Your task to perform on an android device: turn on priority inbox in the gmail app Image 0: 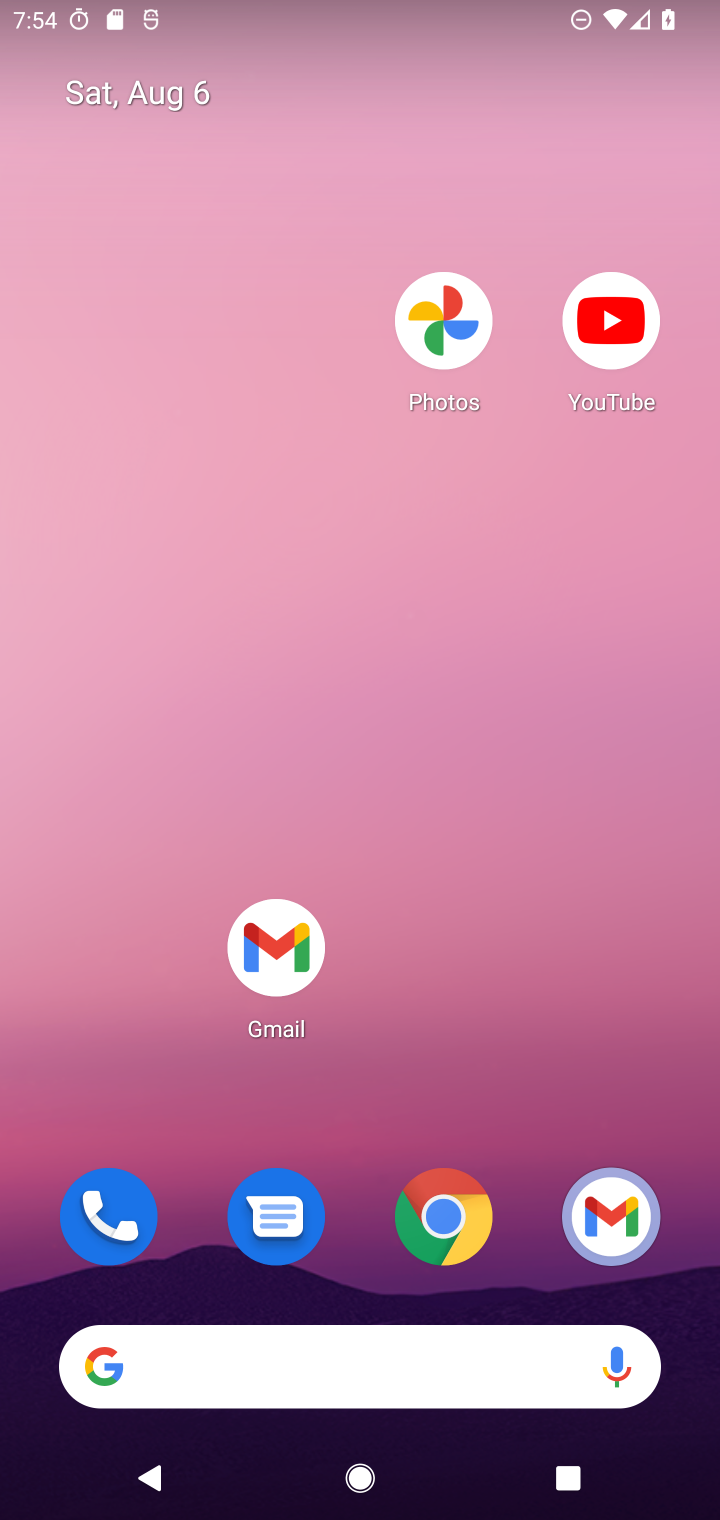
Step 0: drag from (500, 1113) to (492, 244)
Your task to perform on an android device: turn on priority inbox in the gmail app Image 1: 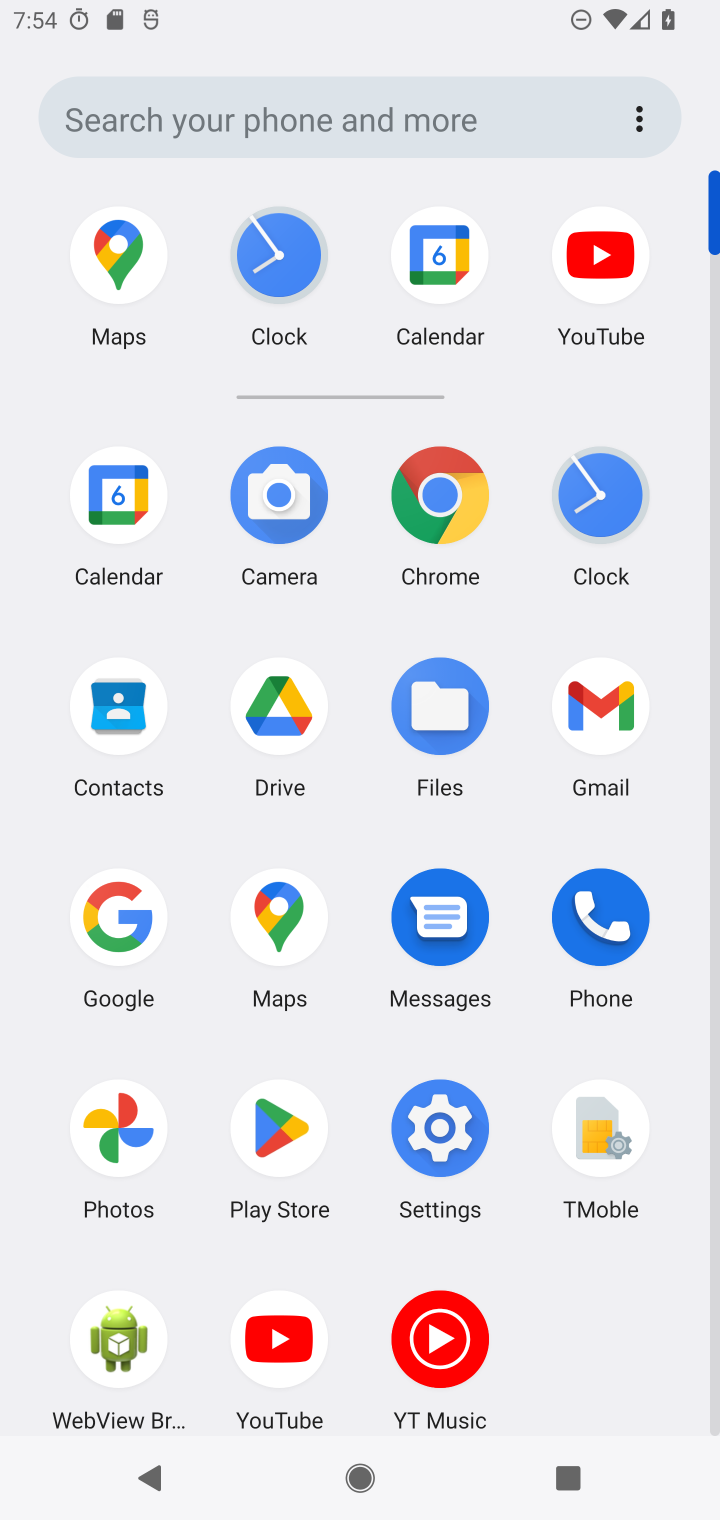
Step 1: click (593, 702)
Your task to perform on an android device: turn on priority inbox in the gmail app Image 2: 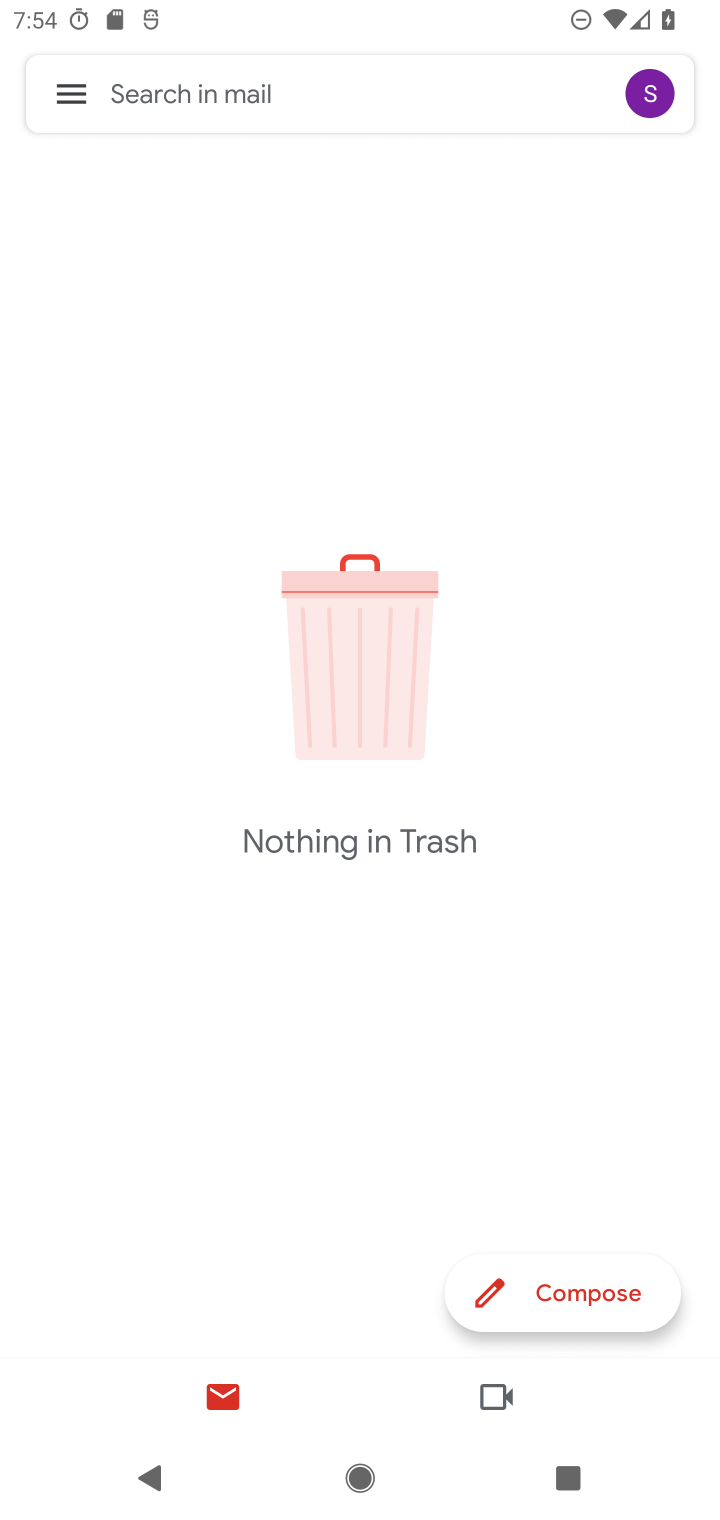
Step 2: click (77, 65)
Your task to perform on an android device: turn on priority inbox in the gmail app Image 3: 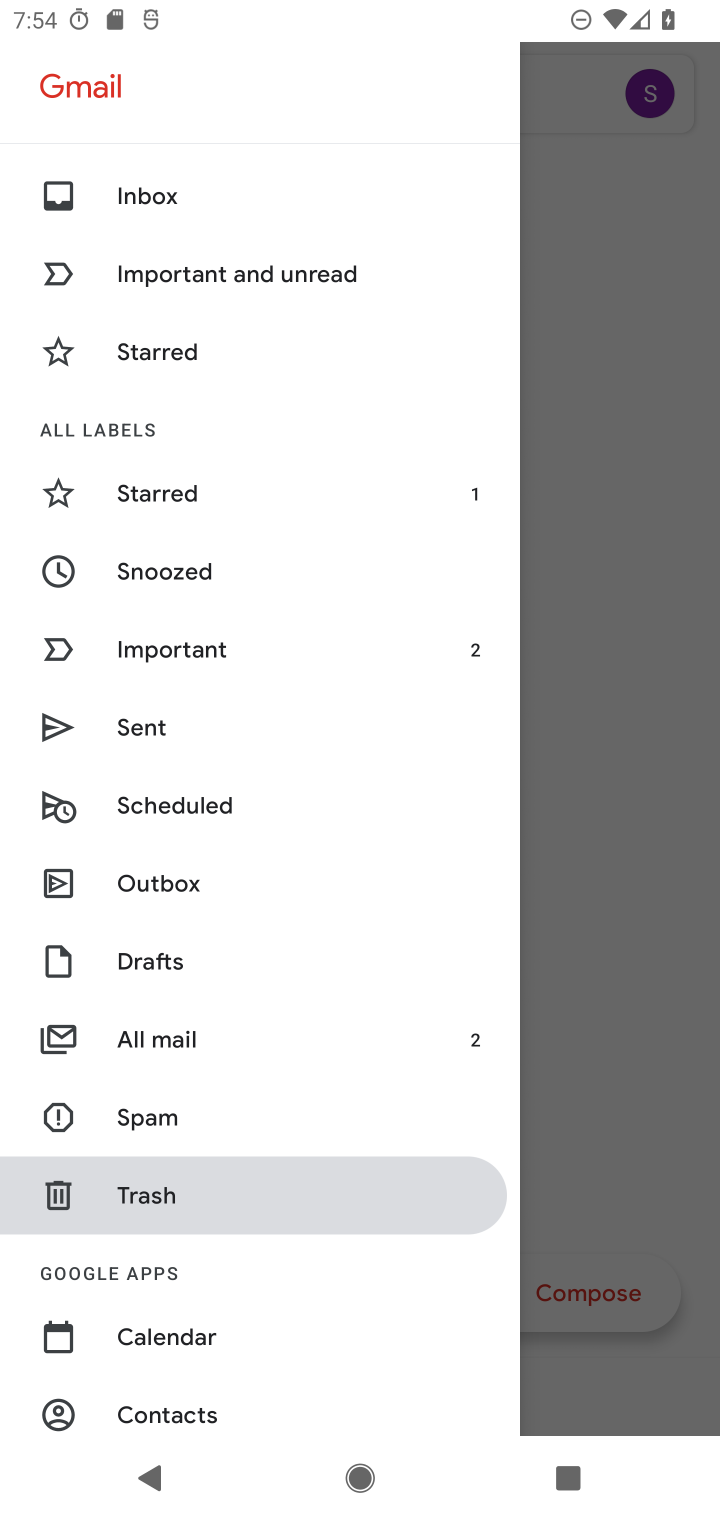
Step 3: drag from (340, 1289) to (365, 514)
Your task to perform on an android device: turn on priority inbox in the gmail app Image 4: 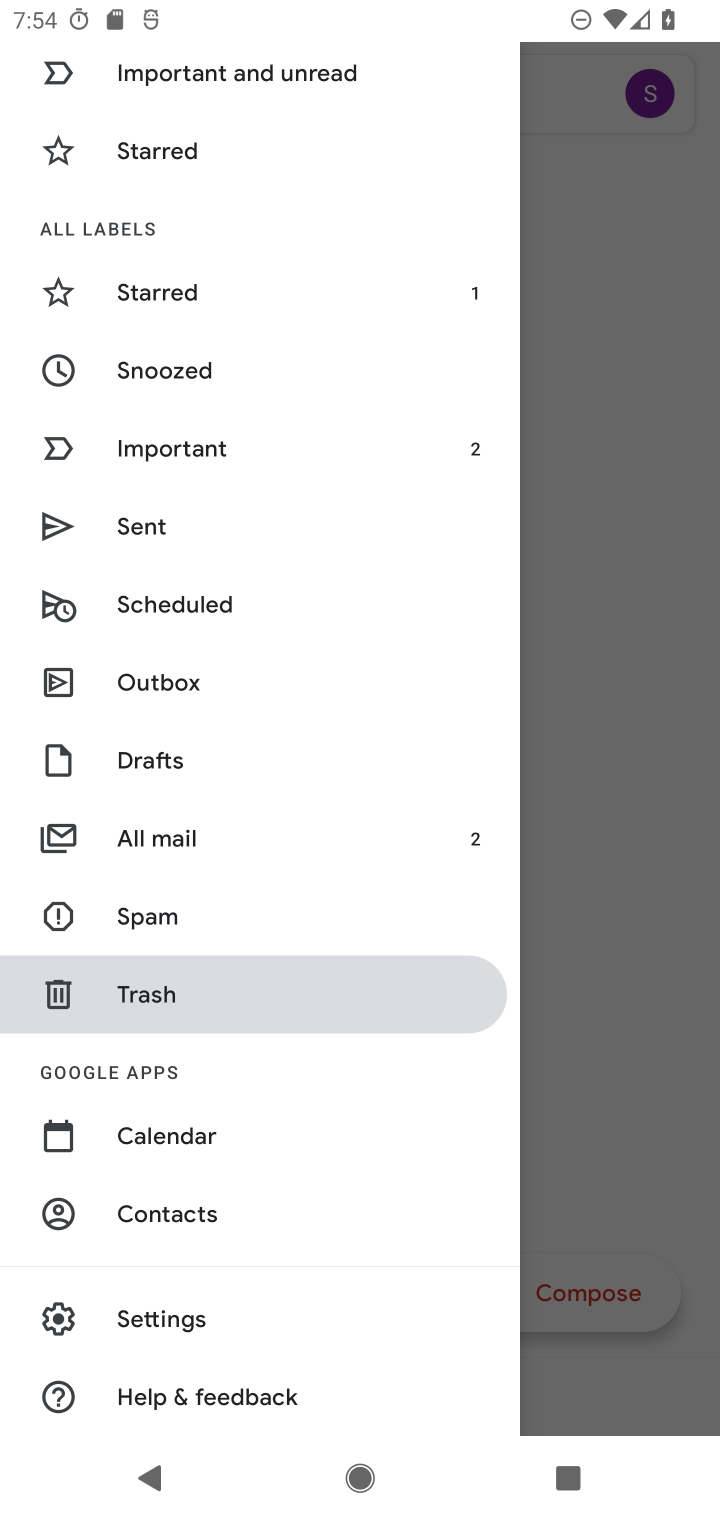
Step 4: click (167, 1328)
Your task to perform on an android device: turn on priority inbox in the gmail app Image 5: 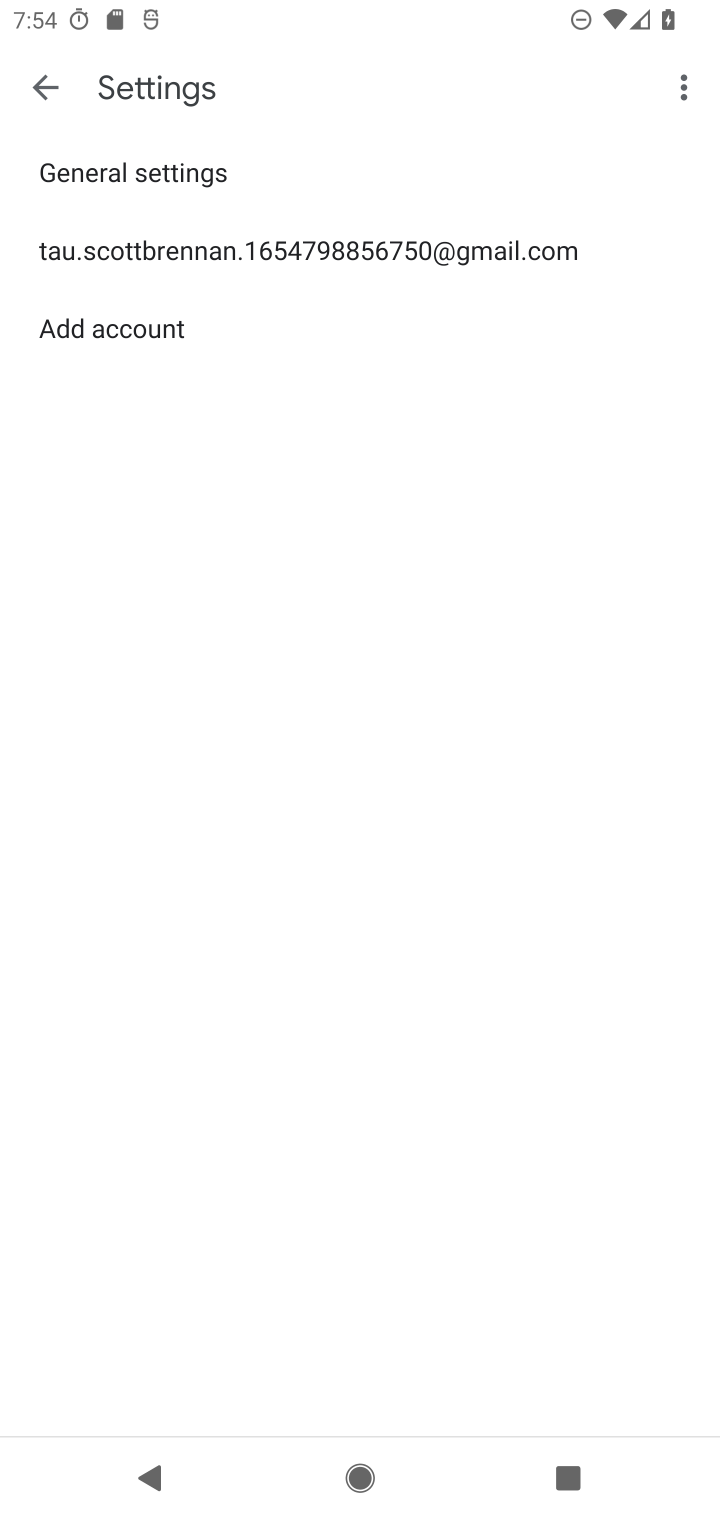
Step 5: click (322, 267)
Your task to perform on an android device: turn on priority inbox in the gmail app Image 6: 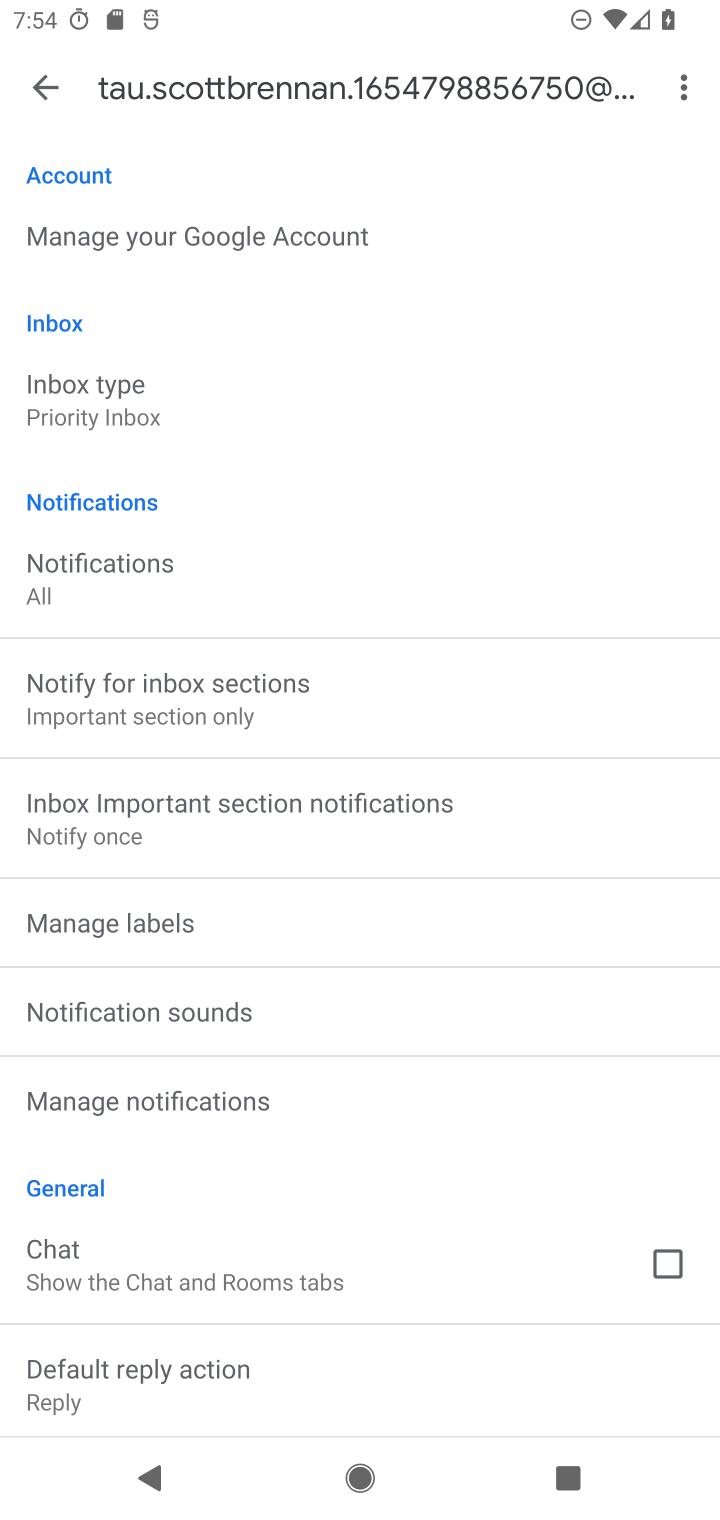
Step 6: click (130, 413)
Your task to perform on an android device: turn on priority inbox in the gmail app Image 7: 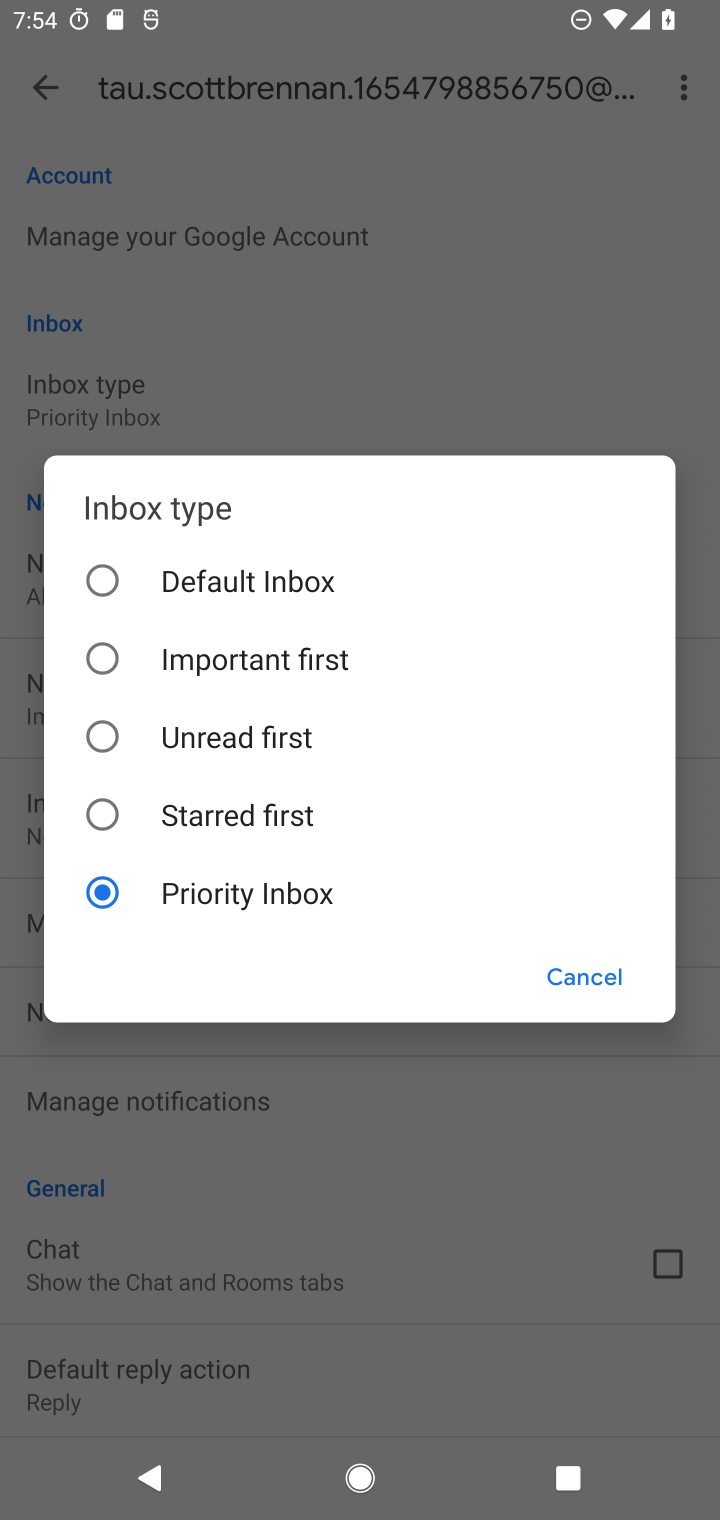
Step 7: task complete